Your task to perform on an android device: Open Yahoo.com Image 0: 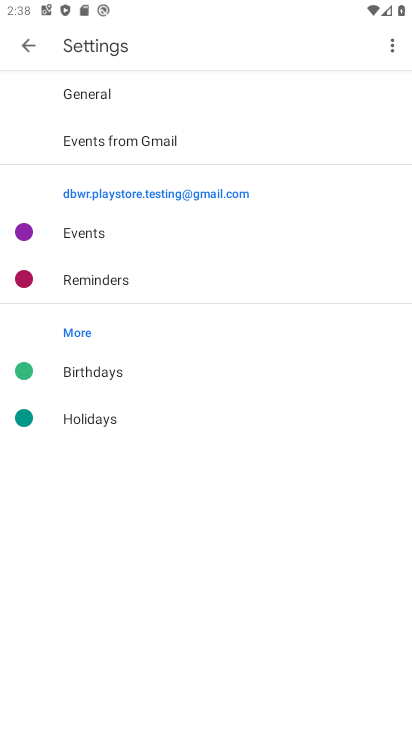
Step 0: press home button
Your task to perform on an android device: Open Yahoo.com Image 1: 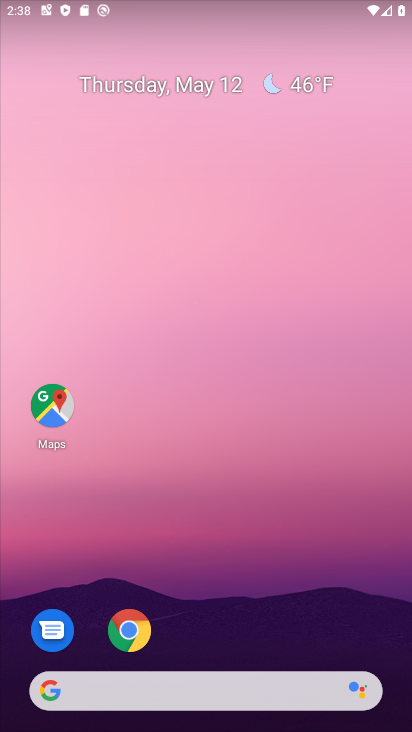
Step 1: click (128, 632)
Your task to perform on an android device: Open Yahoo.com Image 2: 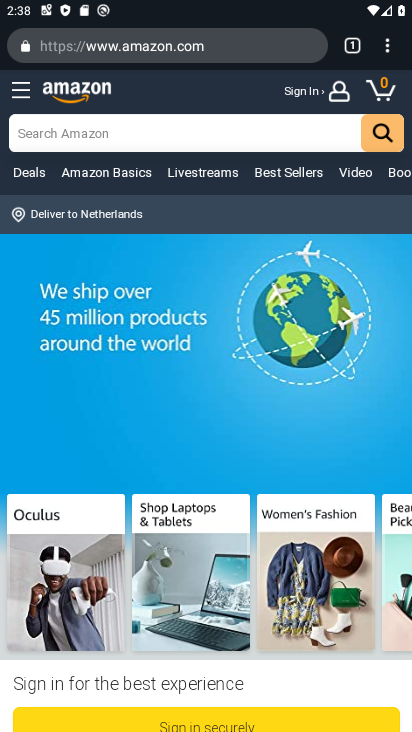
Step 2: click (253, 48)
Your task to perform on an android device: Open Yahoo.com Image 3: 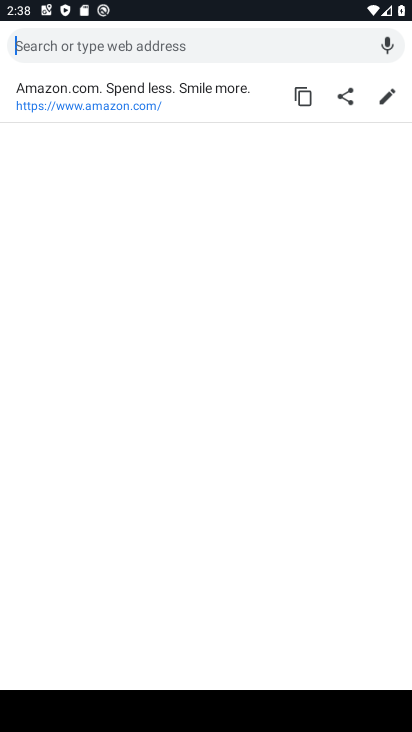
Step 3: type "Yahoo.com"
Your task to perform on an android device: Open Yahoo.com Image 4: 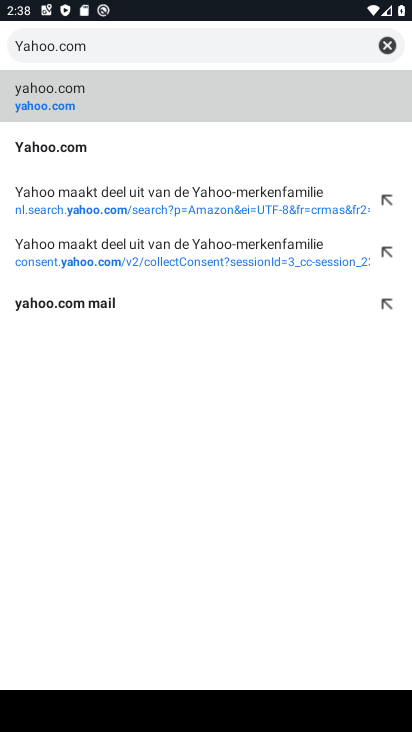
Step 4: click (58, 146)
Your task to perform on an android device: Open Yahoo.com Image 5: 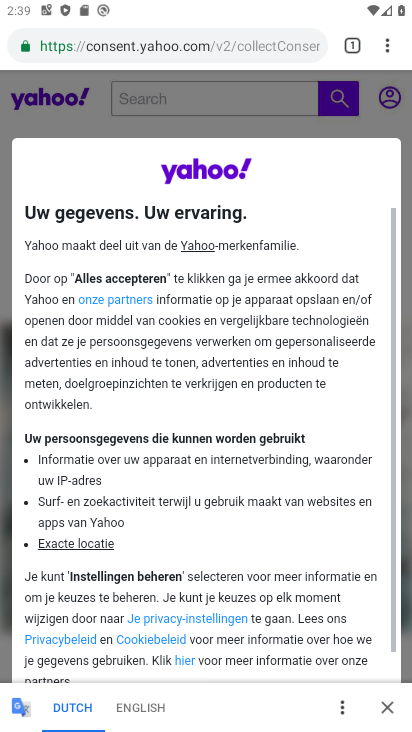
Step 5: task complete